Your task to perform on an android device: change alarm snooze length Image 0: 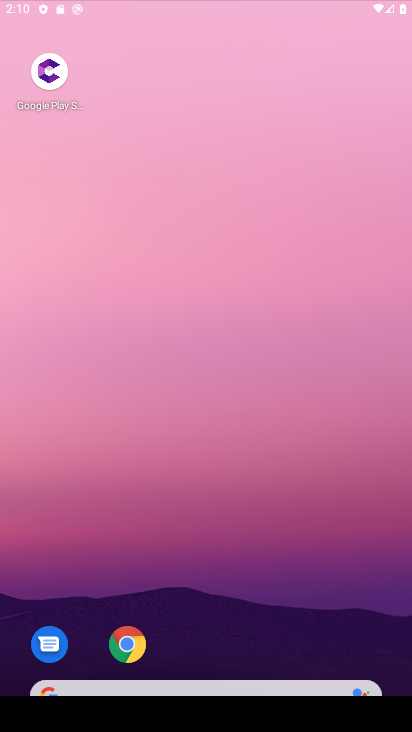
Step 0: press home button
Your task to perform on an android device: change alarm snooze length Image 1: 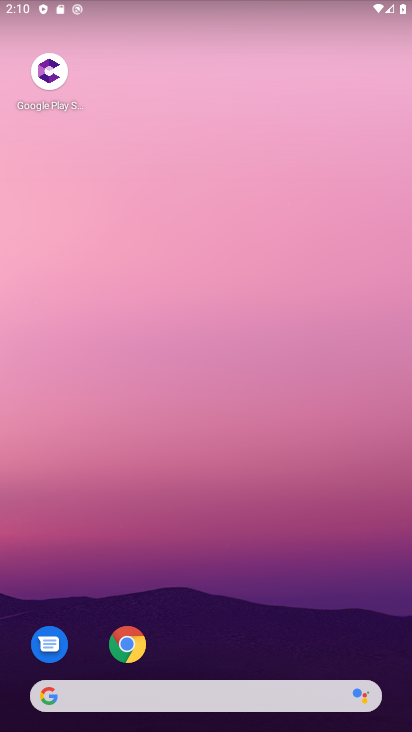
Step 1: drag from (253, 578) to (194, 131)
Your task to perform on an android device: change alarm snooze length Image 2: 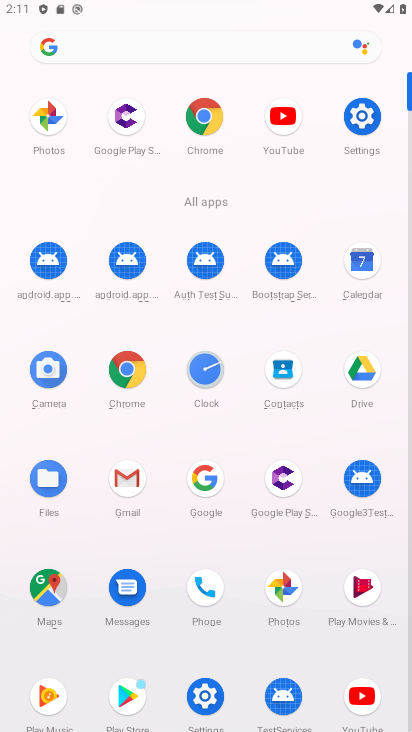
Step 2: click (209, 370)
Your task to perform on an android device: change alarm snooze length Image 3: 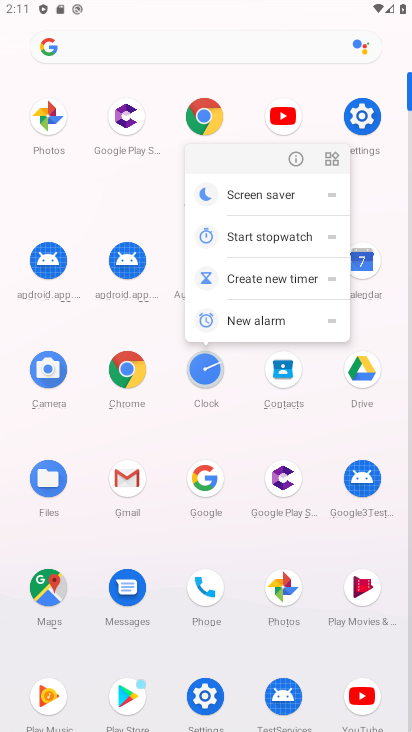
Step 3: click (203, 377)
Your task to perform on an android device: change alarm snooze length Image 4: 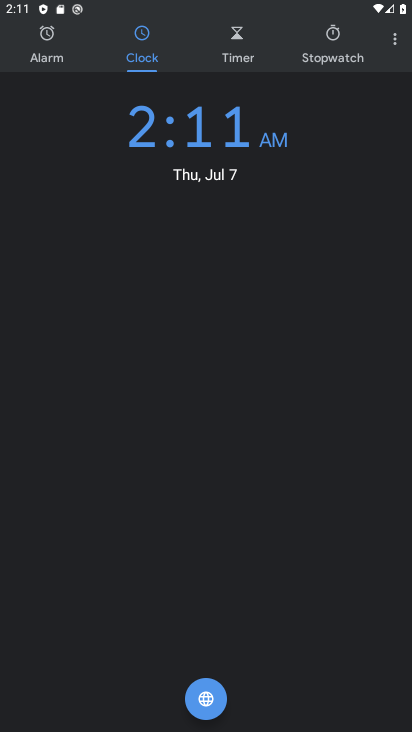
Step 4: click (395, 42)
Your task to perform on an android device: change alarm snooze length Image 5: 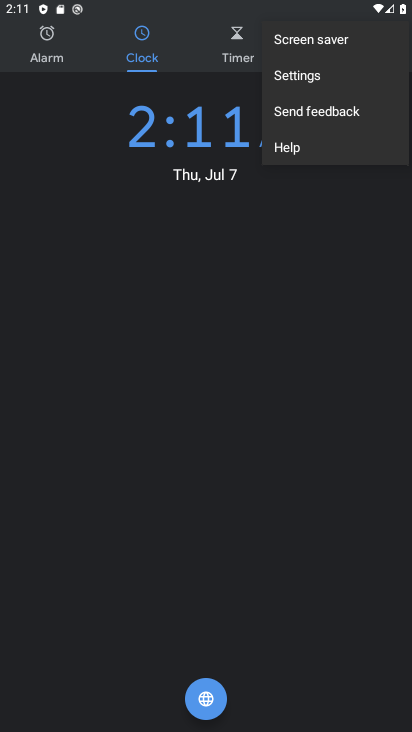
Step 5: click (309, 80)
Your task to perform on an android device: change alarm snooze length Image 6: 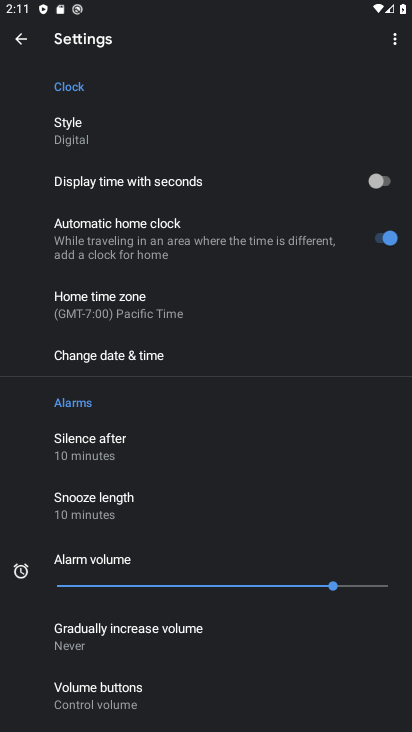
Step 6: click (86, 494)
Your task to perform on an android device: change alarm snooze length Image 7: 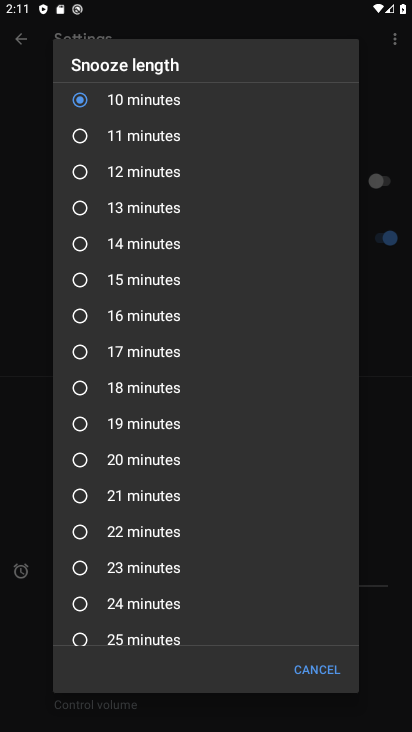
Step 7: click (77, 318)
Your task to perform on an android device: change alarm snooze length Image 8: 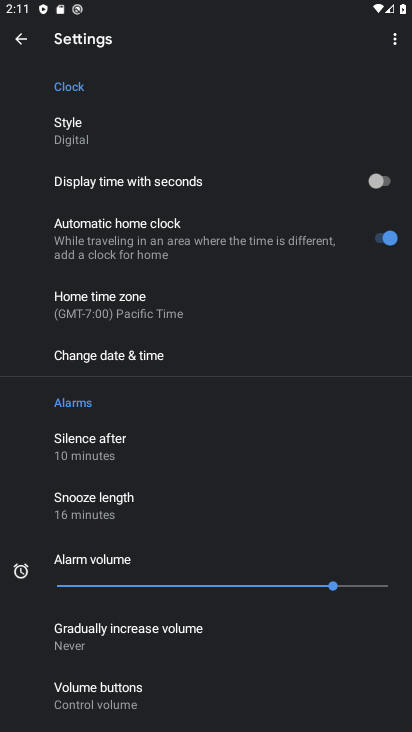
Step 8: task complete